Your task to perform on an android device: change notification settings in the gmail app Image 0: 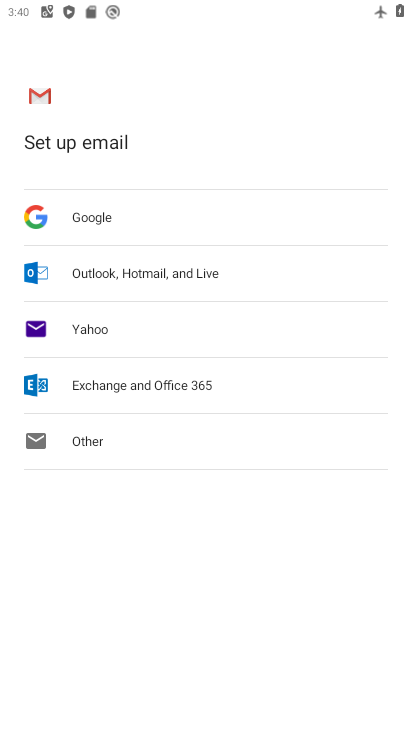
Step 0: press home button
Your task to perform on an android device: change notification settings in the gmail app Image 1: 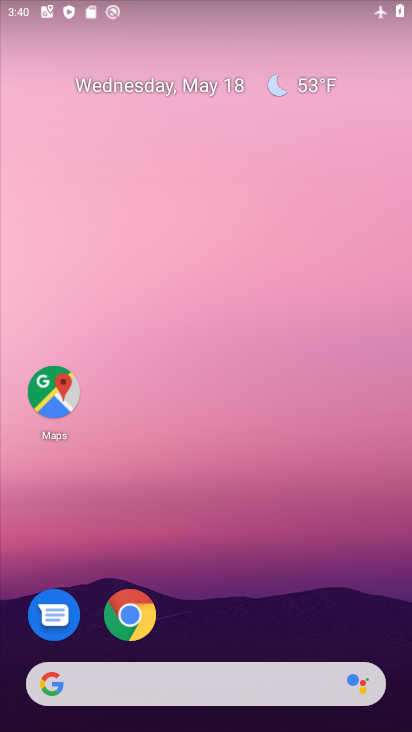
Step 1: drag from (222, 592) to (238, 172)
Your task to perform on an android device: change notification settings in the gmail app Image 2: 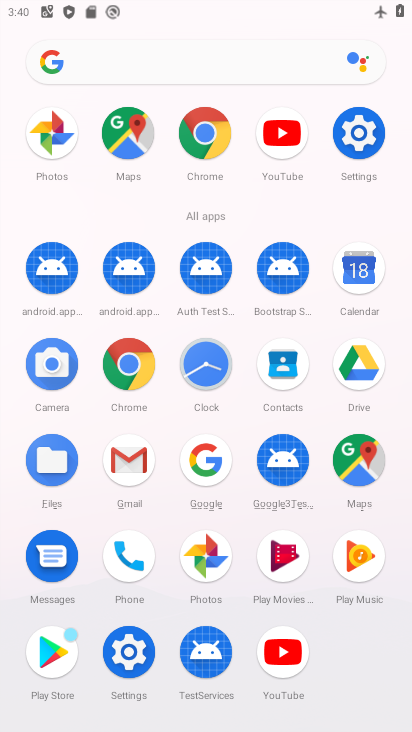
Step 2: click (135, 462)
Your task to perform on an android device: change notification settings in the gmail app Image 3: 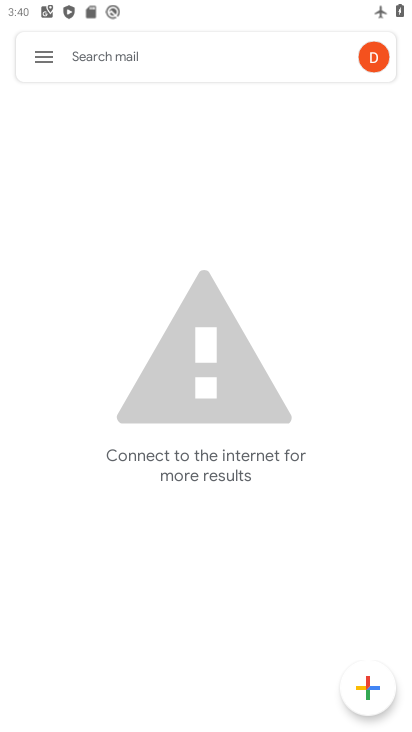
Step 3: click (41, 53)
Your task to perform on an android device: change notification settings in the gmail app Image 4: 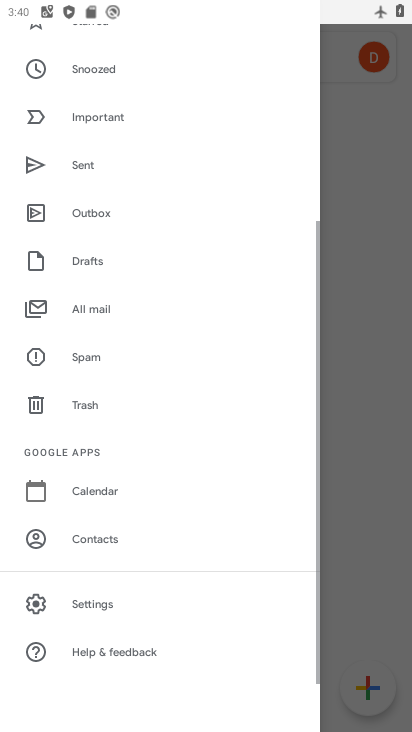
Step 4: click (150, 610)
Your task to perform on an android device: change notification settings in the gmail app Image 5: 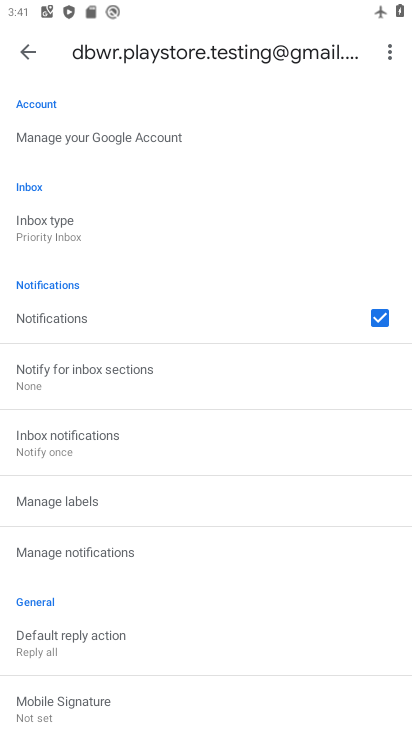
Step 5: click (115, 559)
Your task to perform on an android device: change notification settings in the gmail app Image 6: 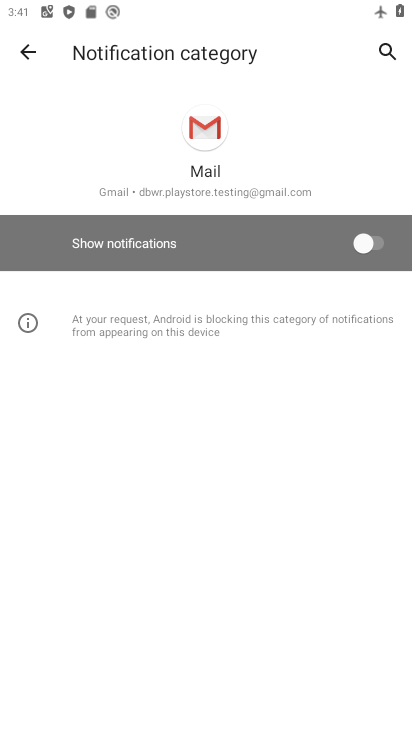
Step 6: click (374, 234)
Your task to perform on an android device: change notification settings in the gmail app Image 7: 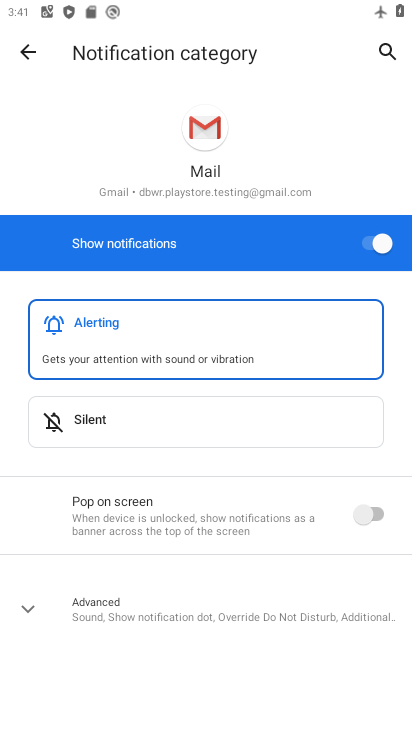
Step 7: task complete